Your task to perform on an android device: turn notification dots off Image 0: 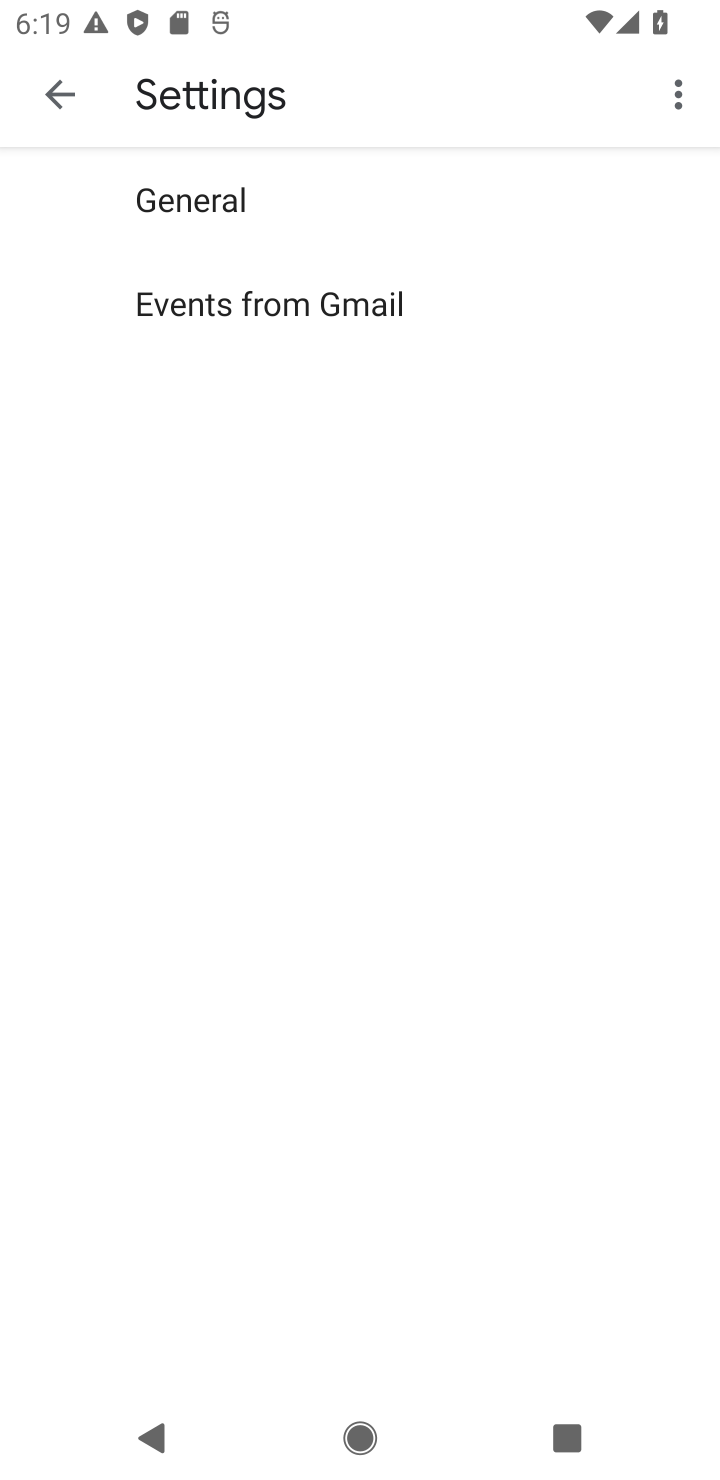
Step 0: press back button
Your task to perform on an android device: turn notification dots off Image 1: 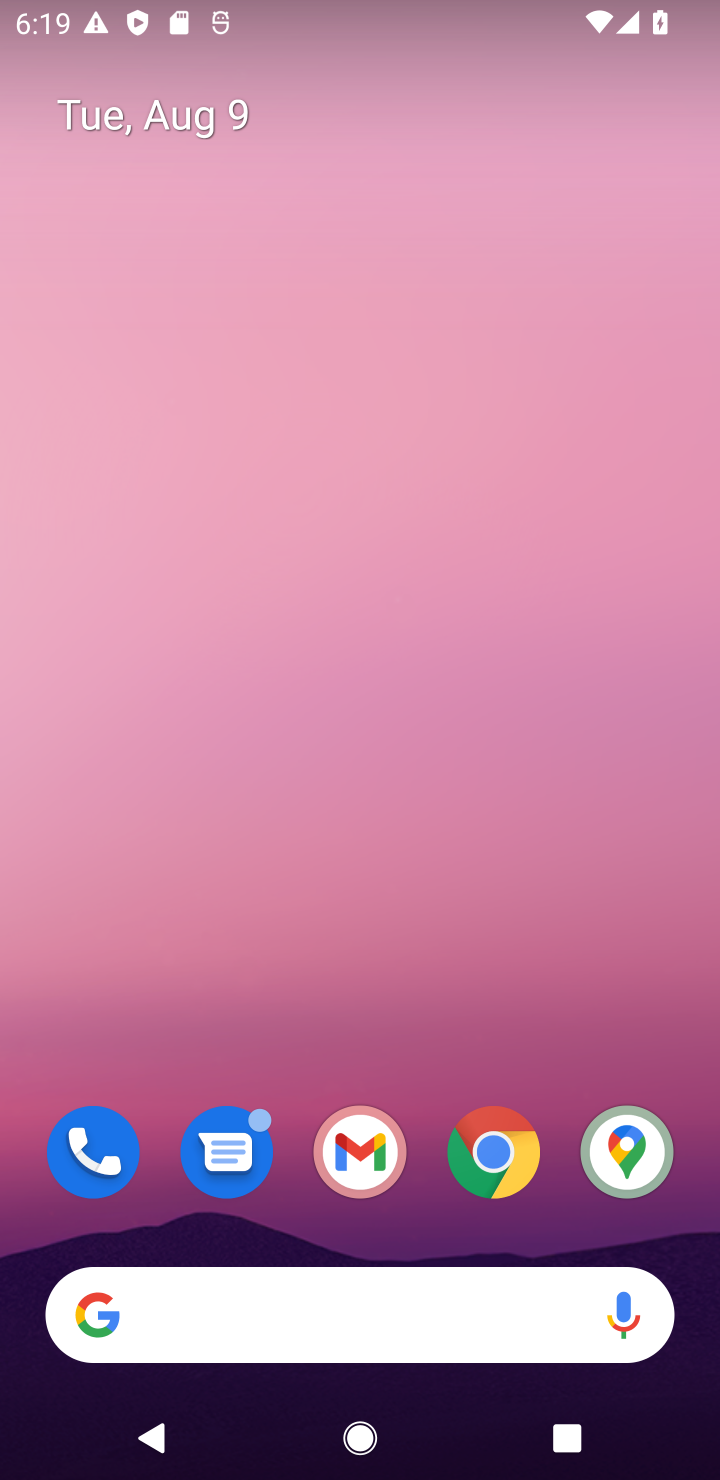
Step 1: drag from (213, 1268) to (451, 3)
Your task to perform on an android device: turn notification dots off Image 2: 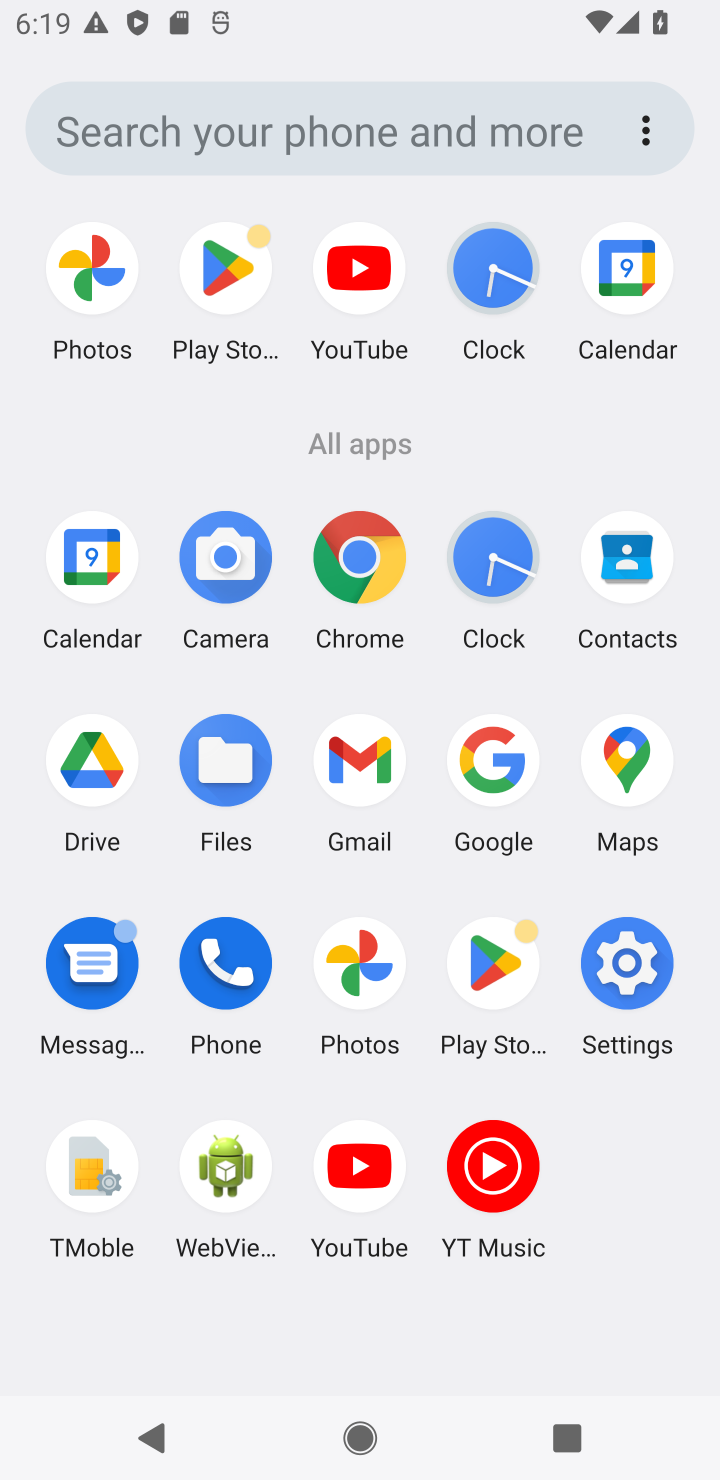
Step 2: click (633, 978)
Your task to perform on an android device: turn notification dots off Image 3: 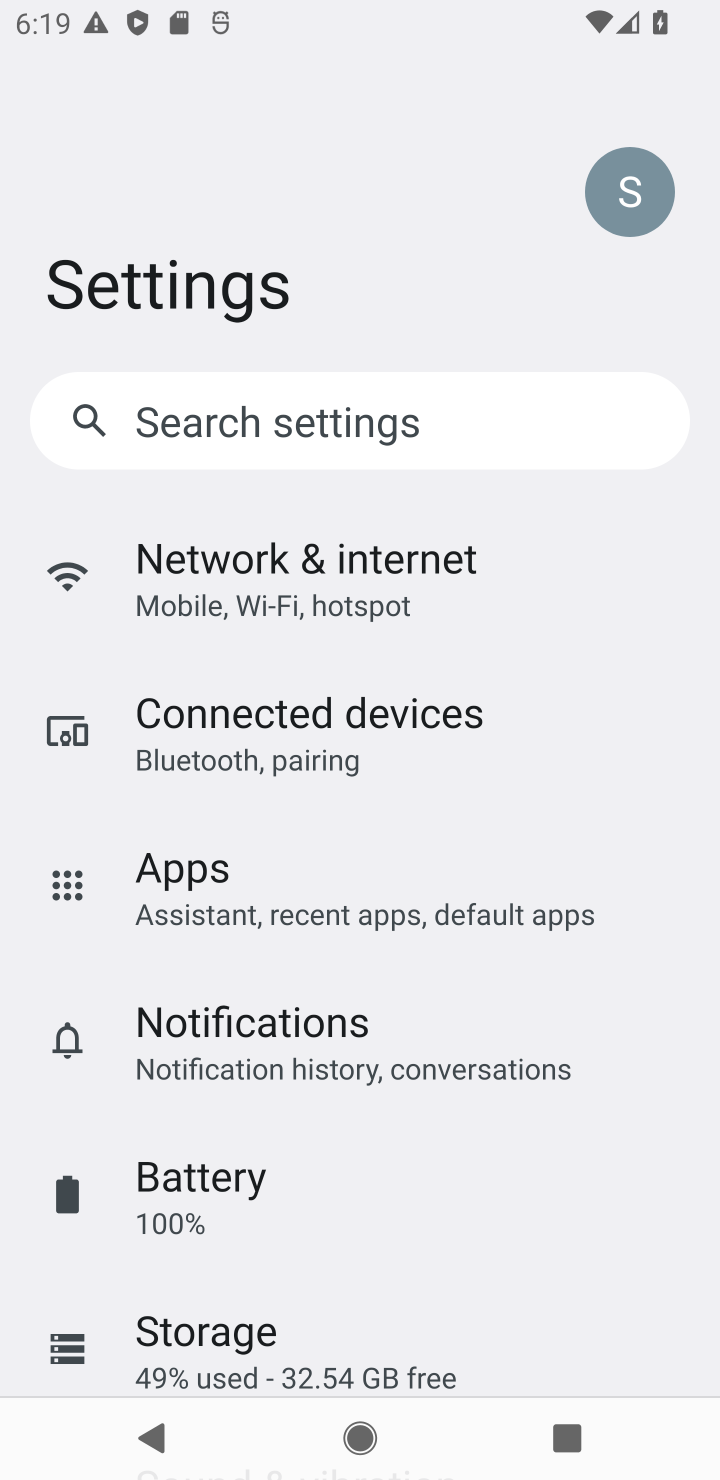
Step 3: click (361, 1060)
Your task to perform on an android device: turn notification dots off Image 4: 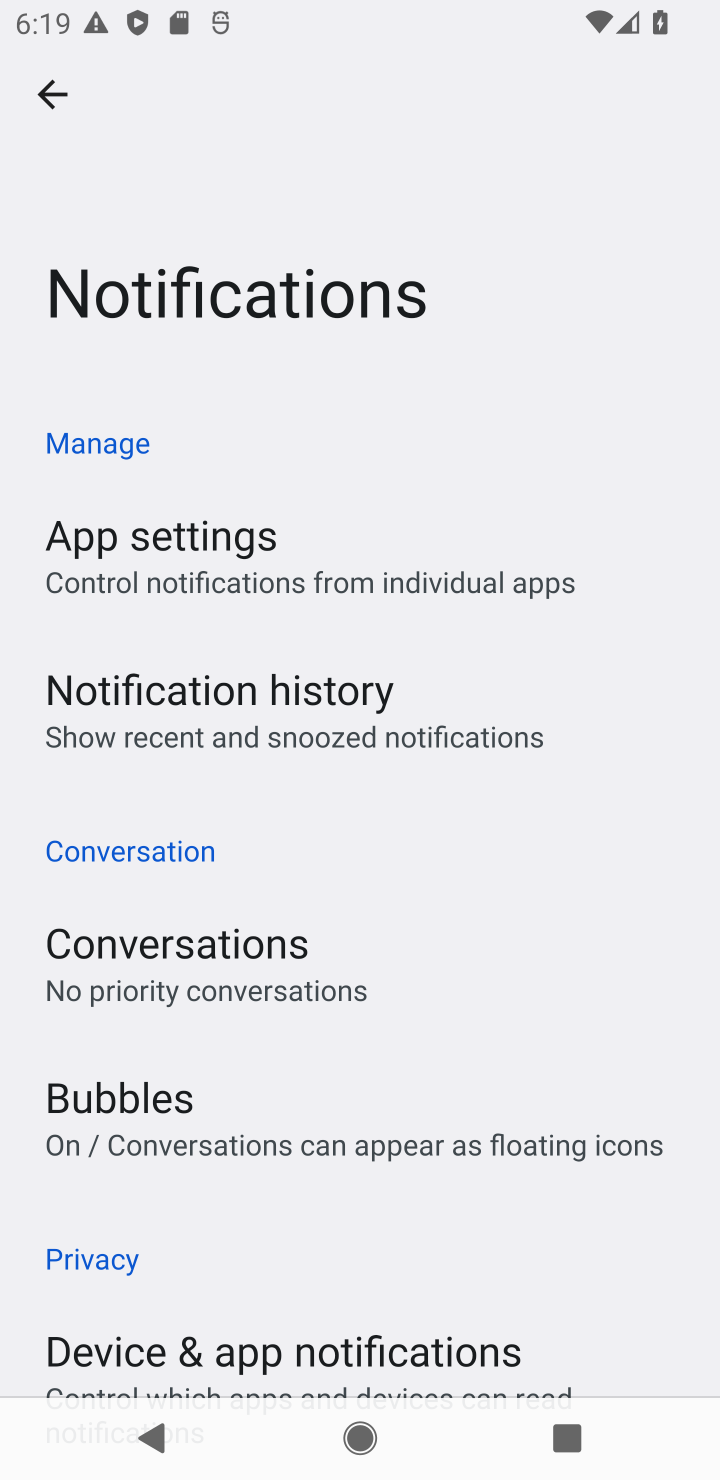
Step 4: drag from (358, 1334) to (517, 342)
Your task to perform on an android device: turn notification dots off Image 5: 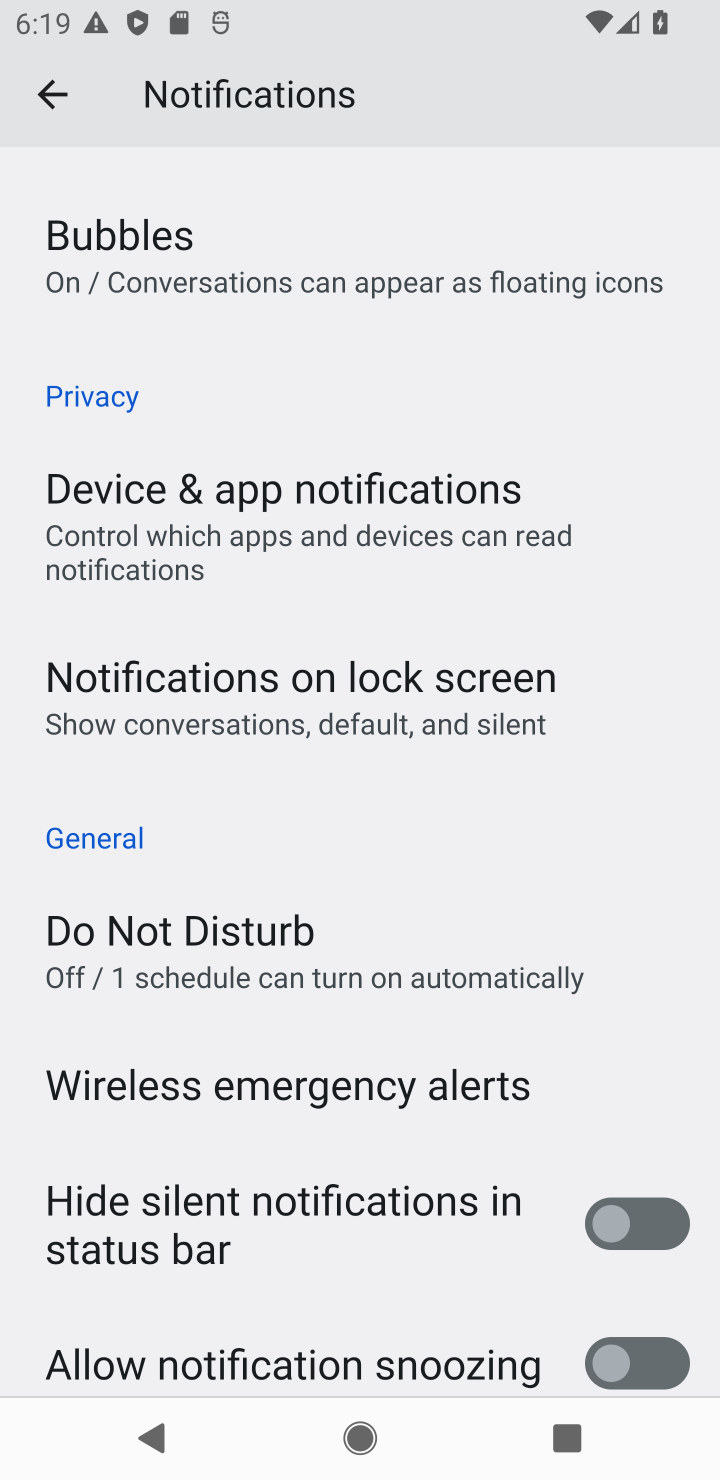
Step 5: drag from (388, 1263) to (493, 465)
Your task to perform on an android device: turn notification dots off Image 6: 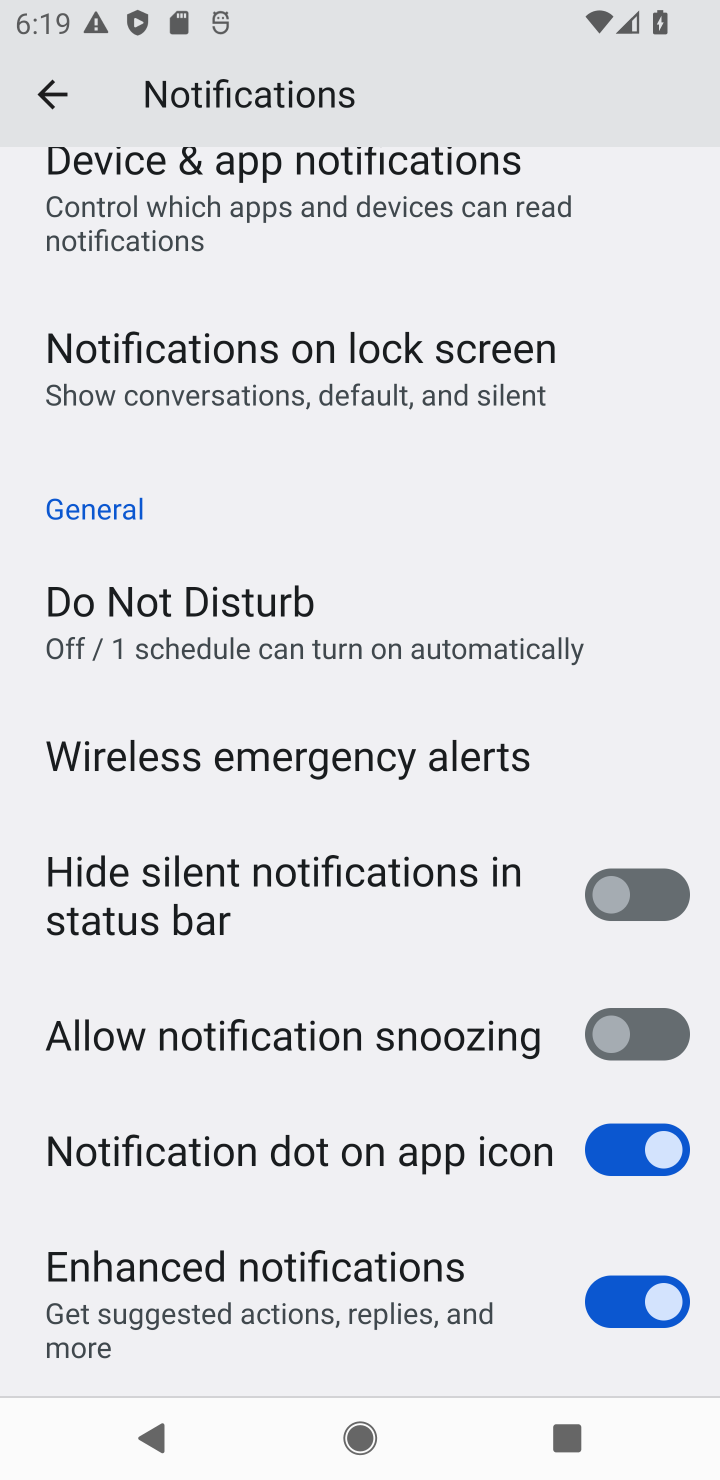
Step 6: click (654, 1170)
Your task to perform on an android device: turn notification dots off Image 7: 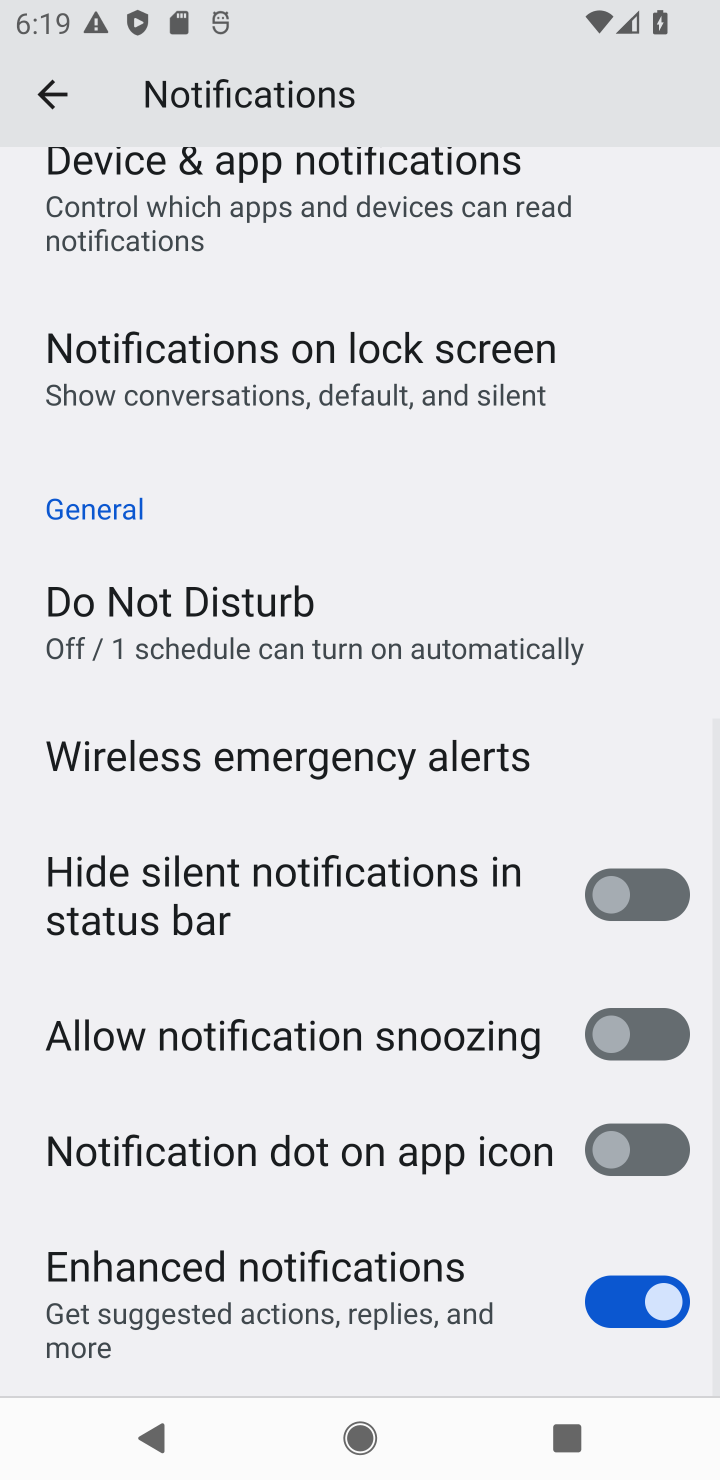
Step 7: task complete